Your task to perform on an android device: set the stopwatch Image 0: 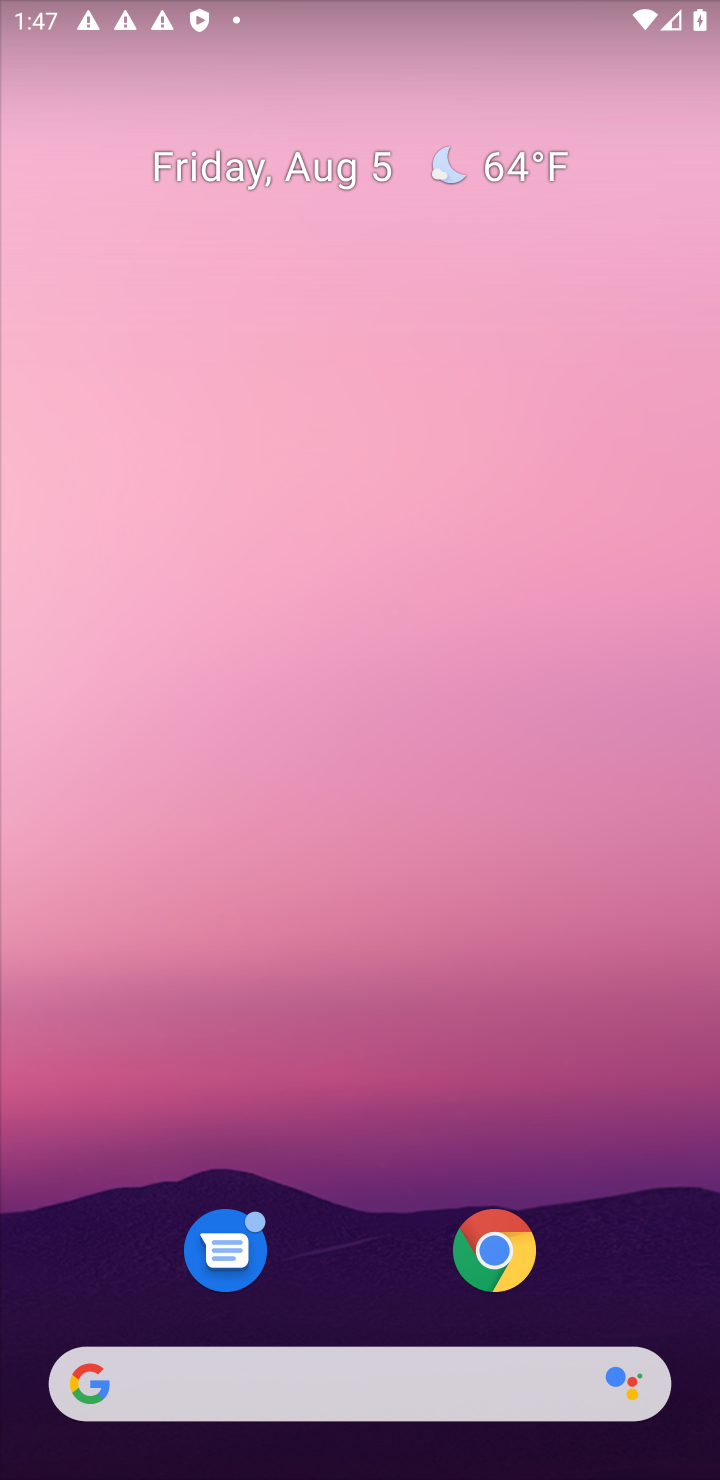
Step 0: drag from (298, 794) to (306, 522)
Your task to perform on an android device: set the stopwatch Image 1: 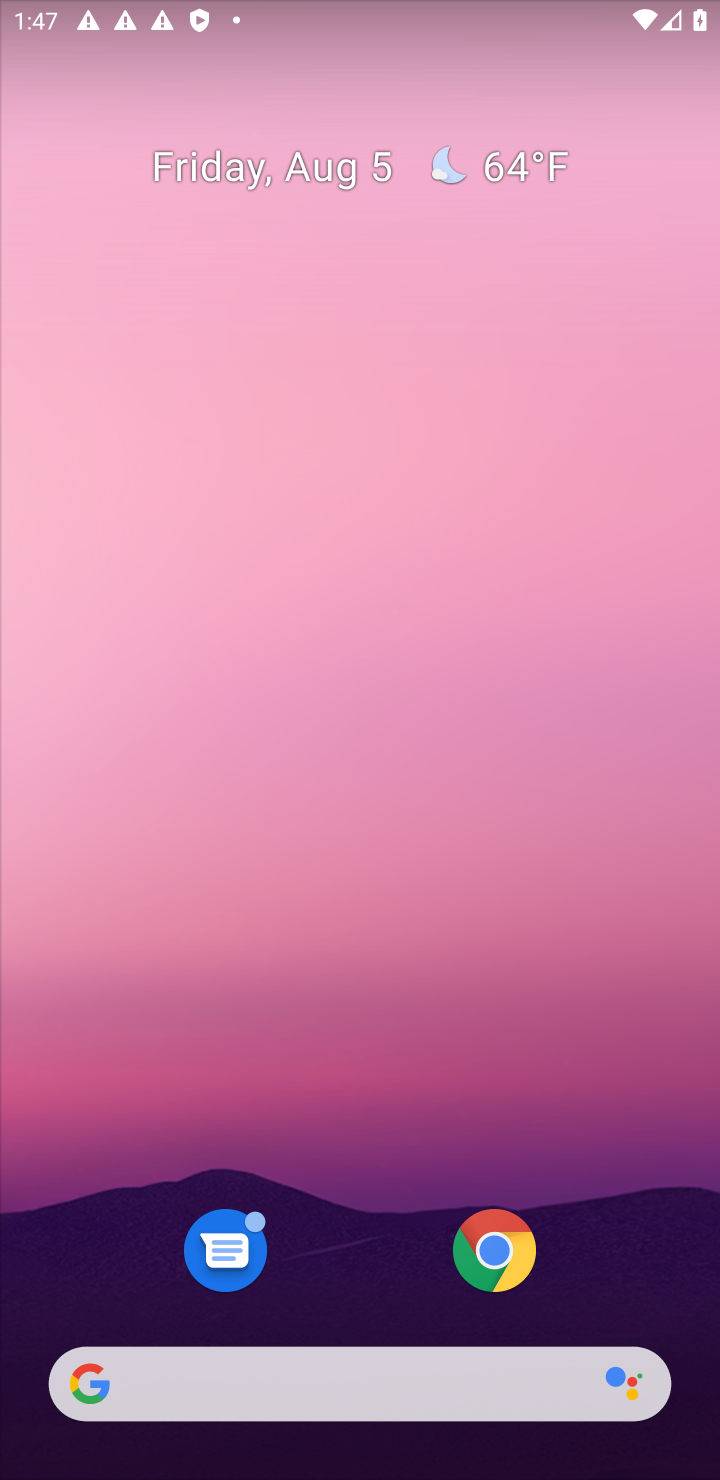
Step 1: drag from (338, 1289) to (416, 168)
Your task to perform on an android device: set the stopwatch Image 2: 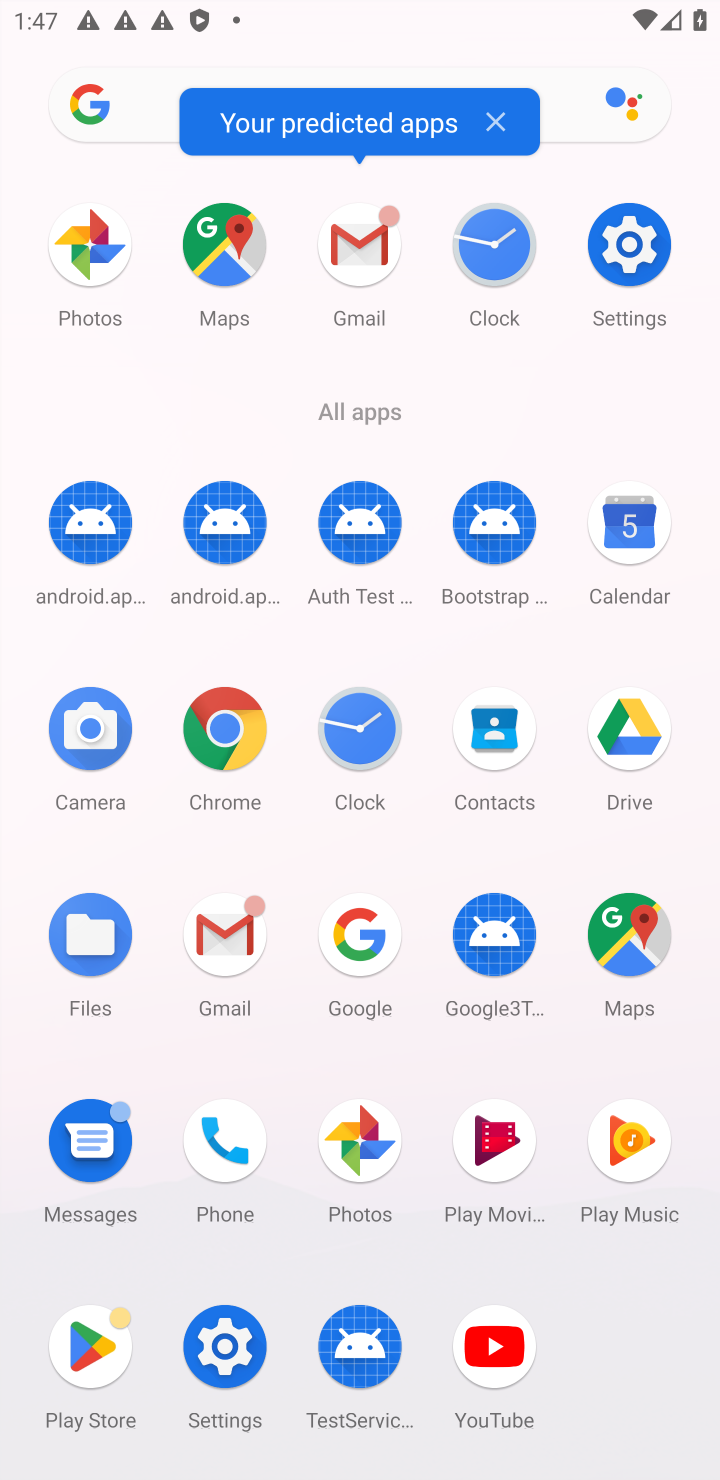
Step 2: click (356, 746)
Your task to perform on an android device: set the stopwatch Image 3: 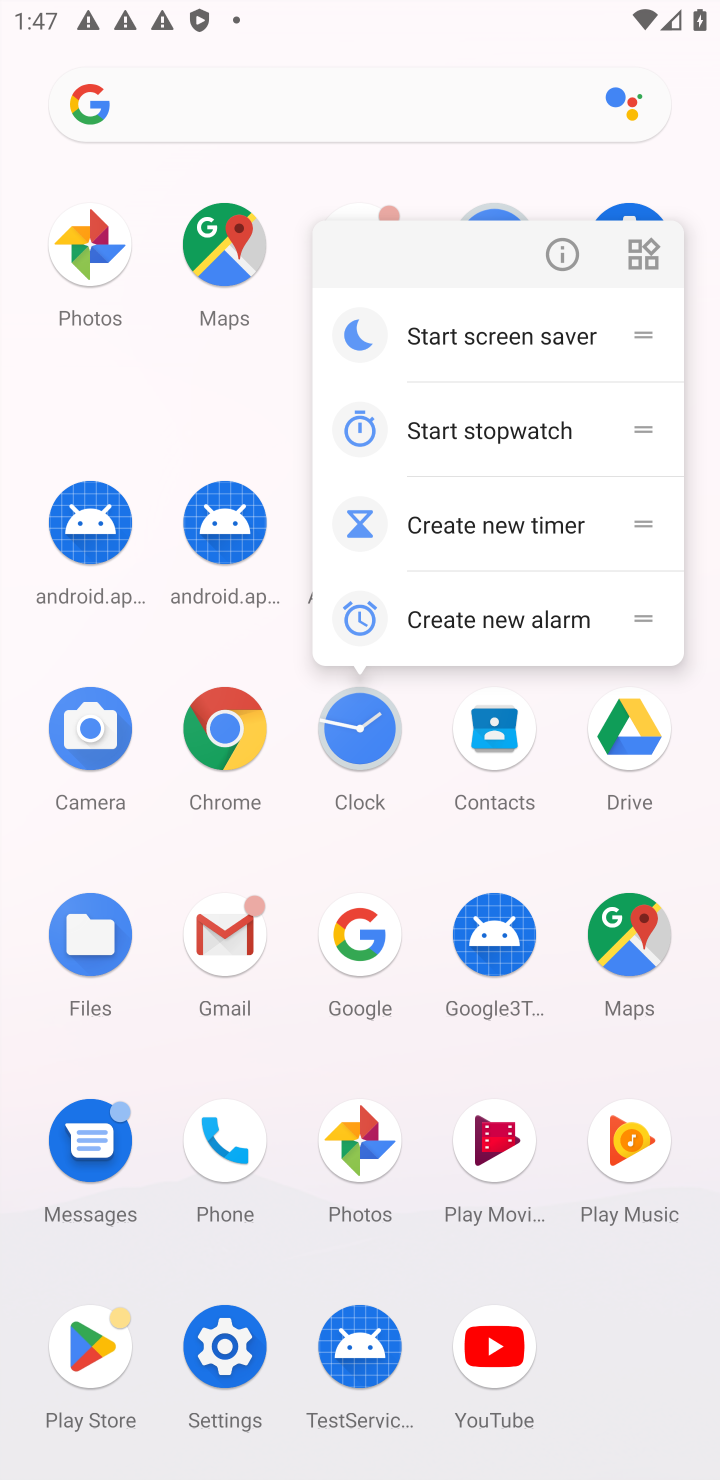
Step 3: click (563, 258)
Your task to perform on an android device: set the stopwatch Image 4: 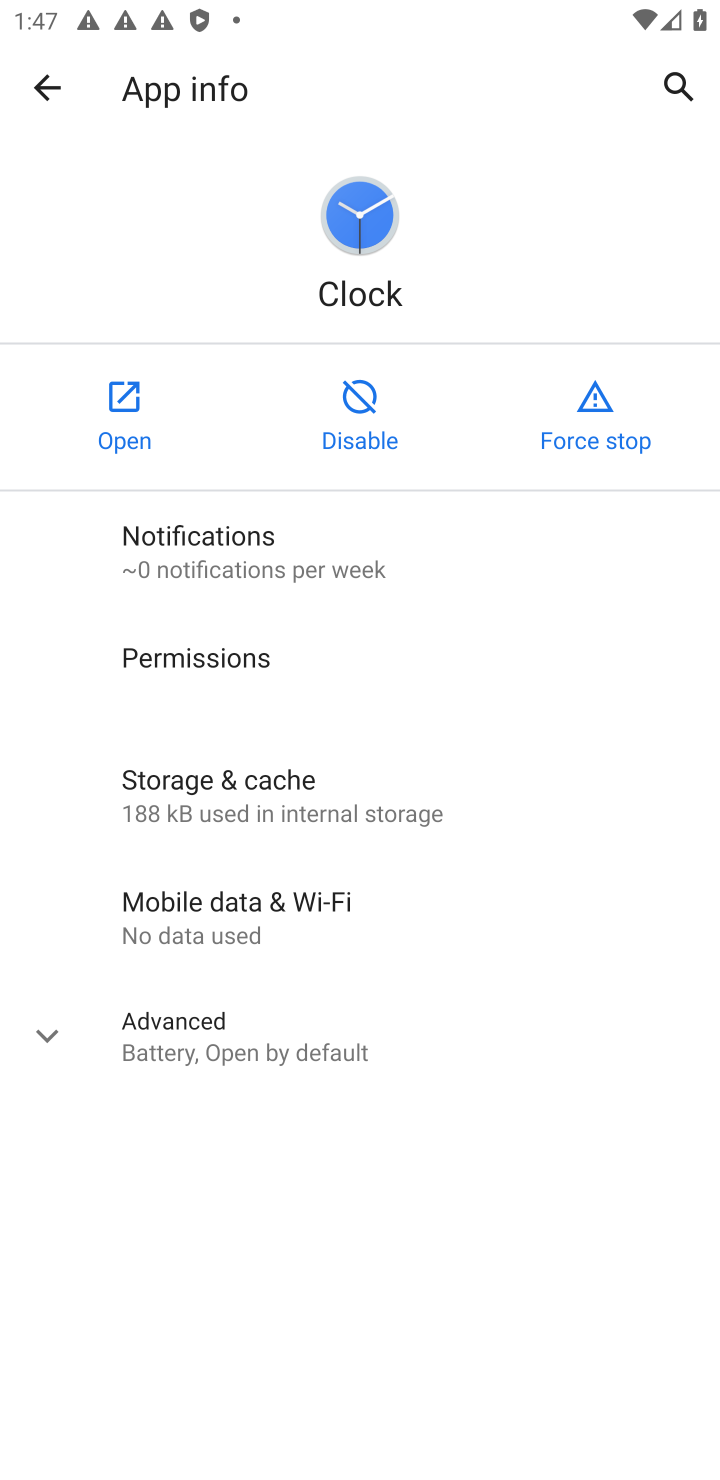
Step 4: click (124, 414)
Your task to perform on an android device: set the stopwatch Image 5: 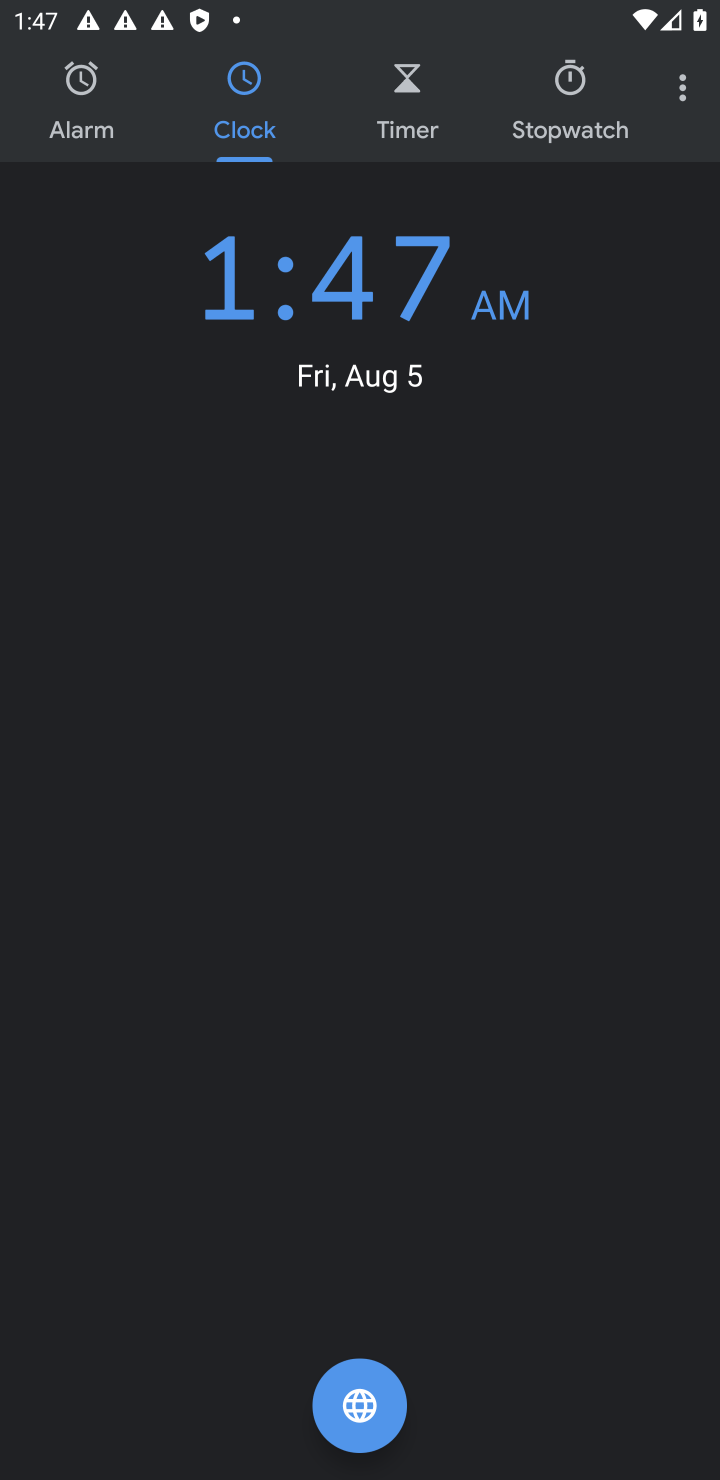
Step 5: click (572, 157)
Your task to perform on an android device: set the stopwatch Image 6: 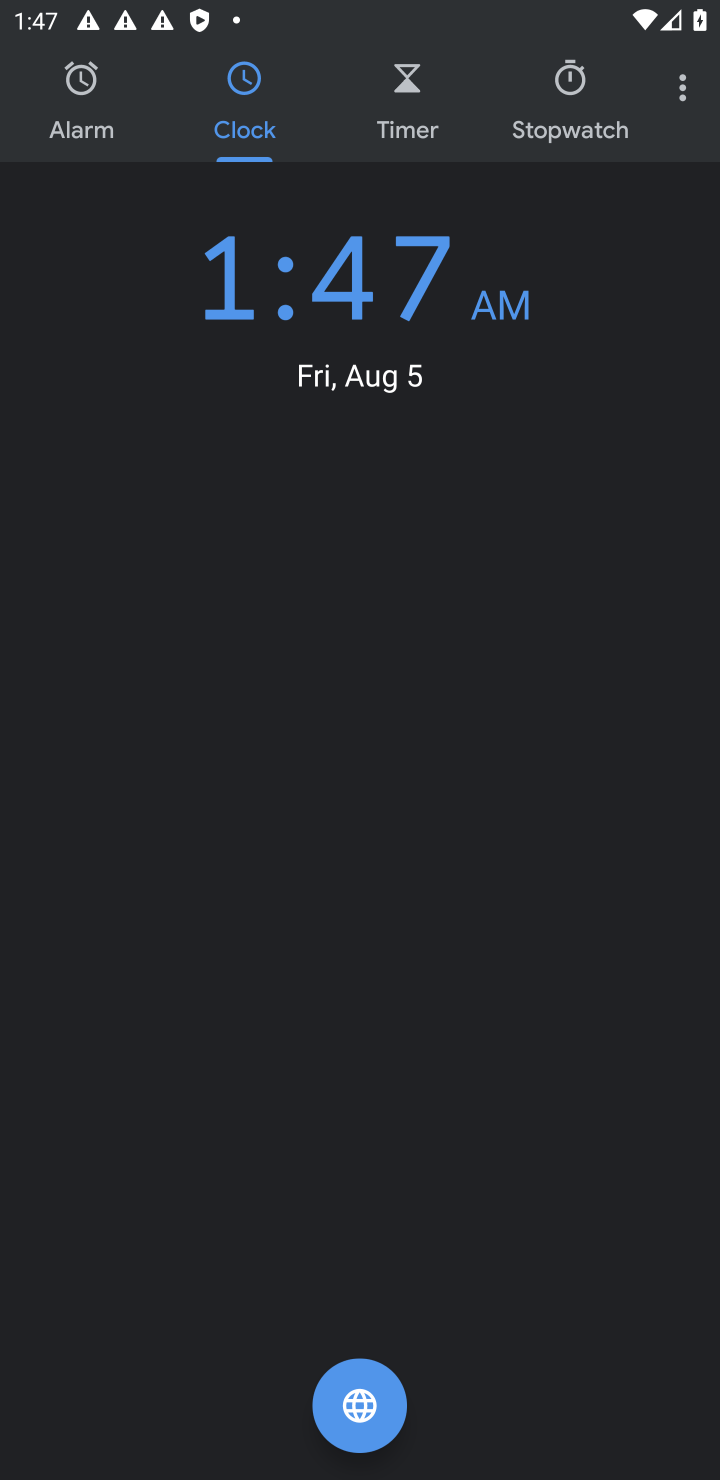
Step 6: click (560, 117)
Your task to perform on an android device: set the stopwatch Image 7: 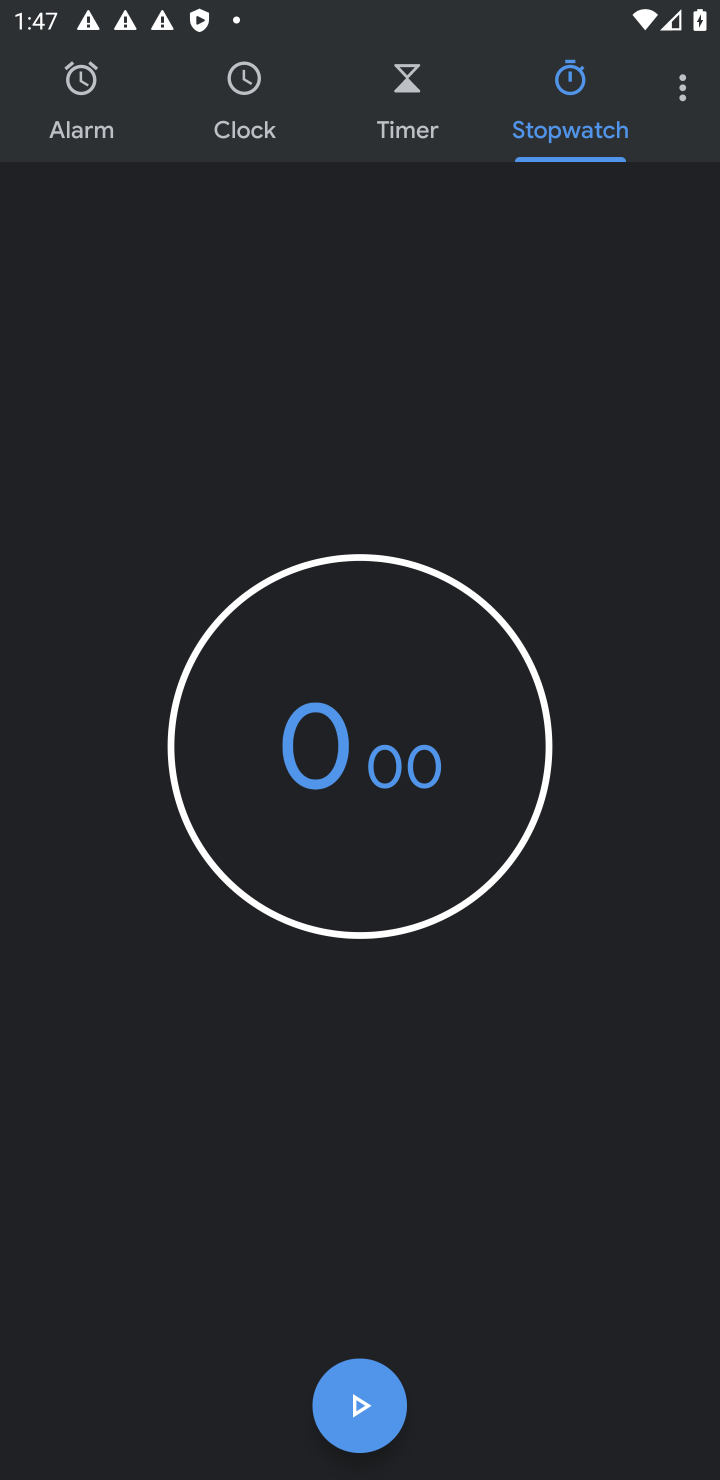
Step 7: click (340, 1407)
Your task to perform on an android device: set the stopwatch Image 8: 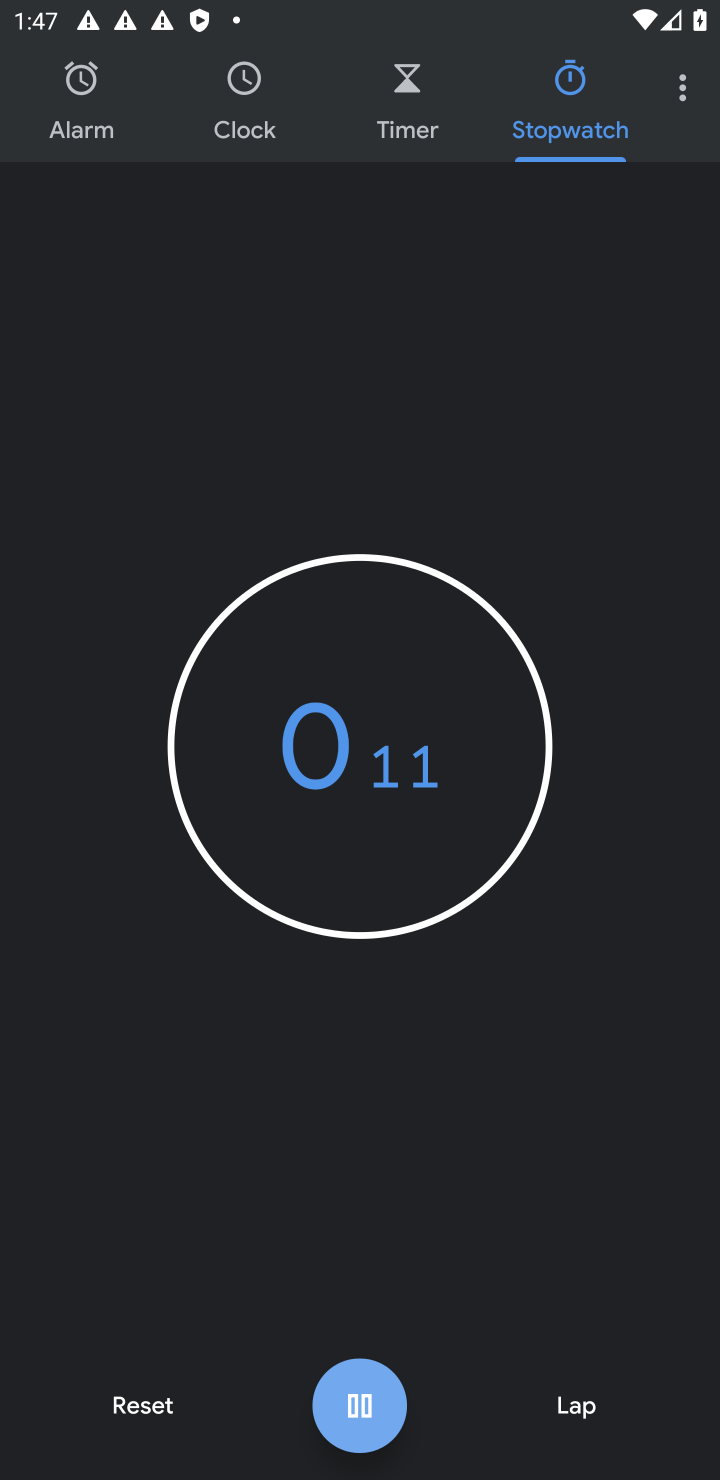
Step 8: task complete